Your task to perform on an android device: clear all cookies in the chrome app Image 0: 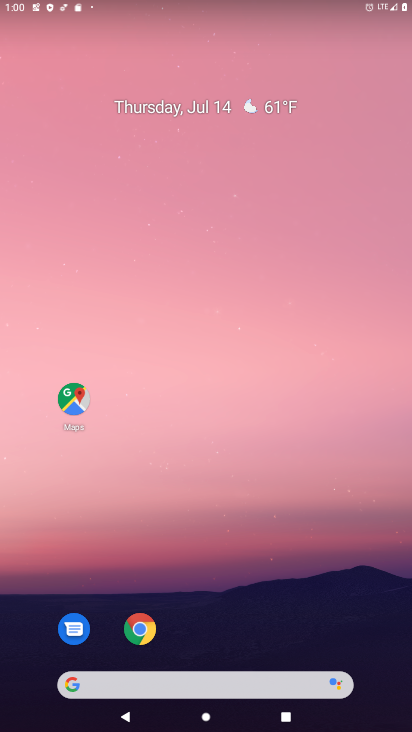
Step 0: click (132, 631)
Your task to perform on an android device: clear all cookies in the chrome app Image 1: 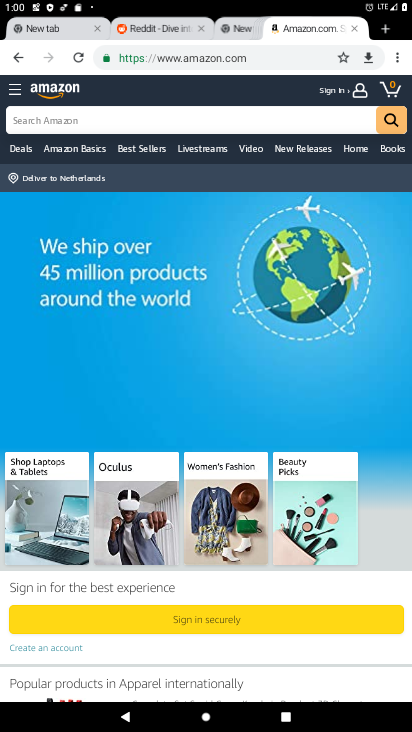
Step 1: click (402, 58)
Your task to perform on an android device: clear all cookies in the chrome app Image 2: 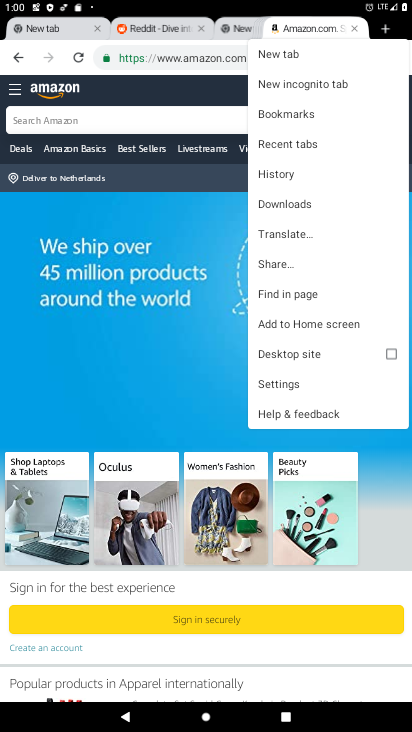
Step 2: click (285, 168)
Your task to perform on an android device: clear all cookies in the chrome app Image 3: 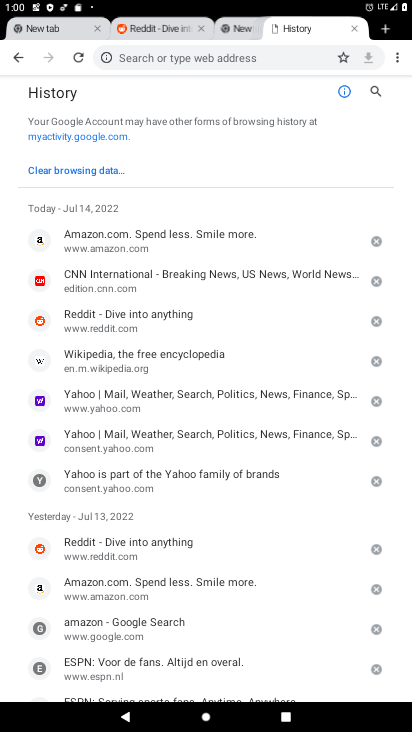
Step 3: click (88, 167)
Your task to perform on an android device: clear all cookies in the chrome app Image 4: 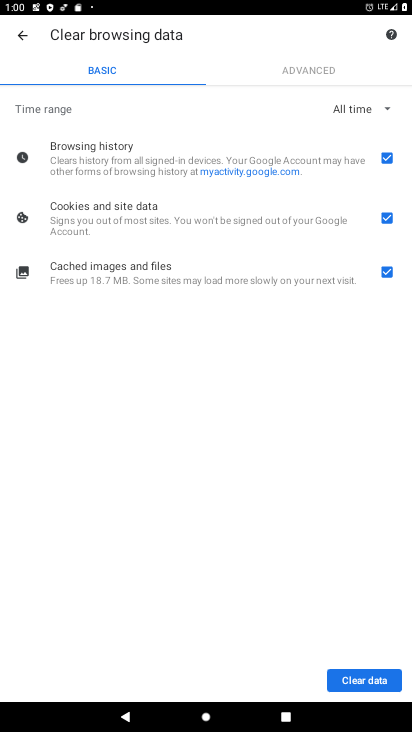
Step 4: click (386, 148)
Your task to perform on an android device: clear all cookies in the chrome app Image 5: 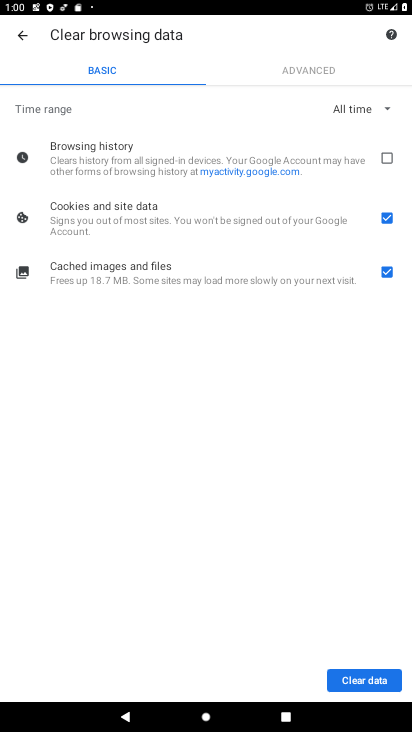
Step 5: click (388, 280)
Your task to perform on an android device: clear all cookies in the chrome app Image 6: 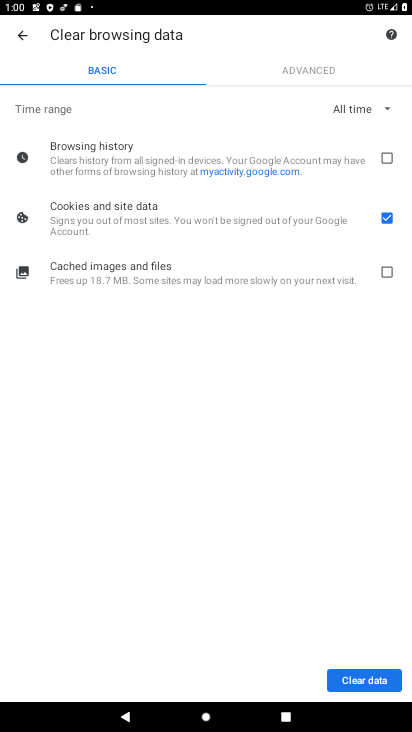
Step 6: click (361, 683)
Your task to perform on an android device: clear all cookies in the chrome app Image 7: 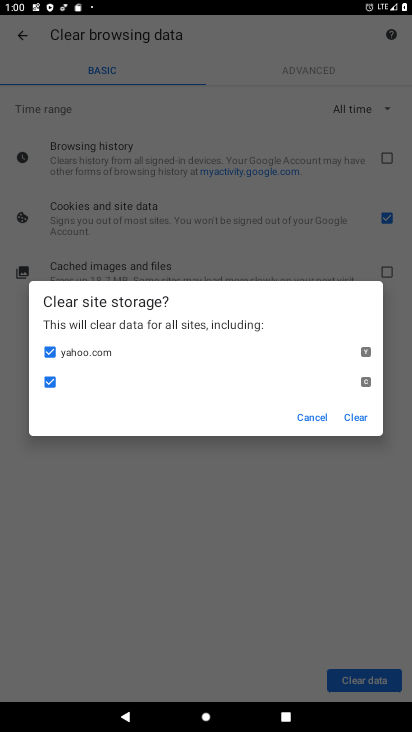
Step 7: click (351, 418)
Your task to perform on an android device: clear all cookies in the chrome app Image 8: 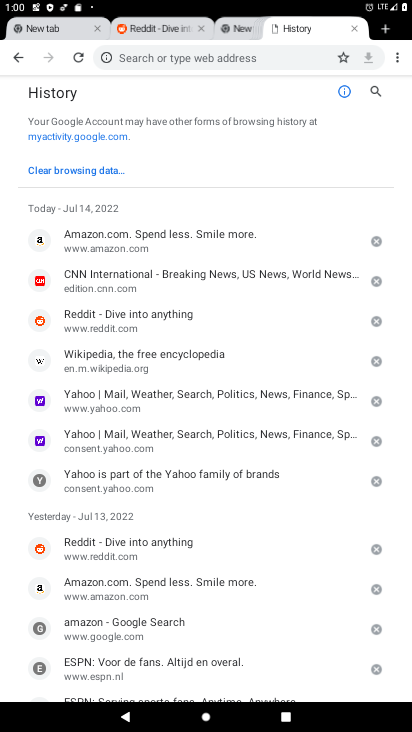
Step 8: task complete